Your task to perform on an android device: turn off notifications settings in the gmail app Image 0: 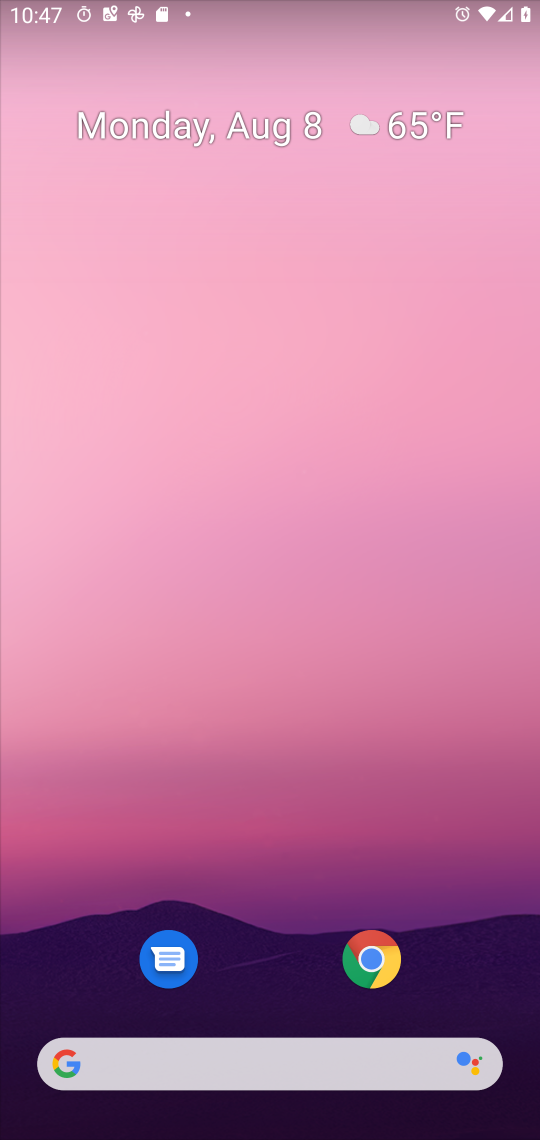
Step 0: drag from (456, 926) to (235, 119)
Your task to perform on an android device: turn off notifications settings in the gmail app Image 1: 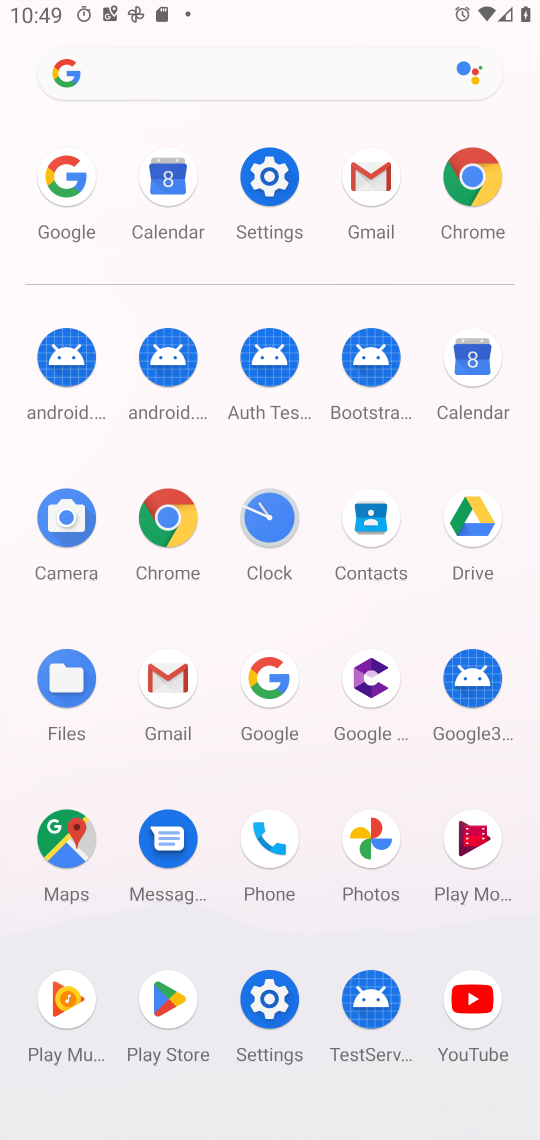
Step 1: click (162, 716)
Your task to perform on an android device: turn off notifications settings in the gmail app Image 2: 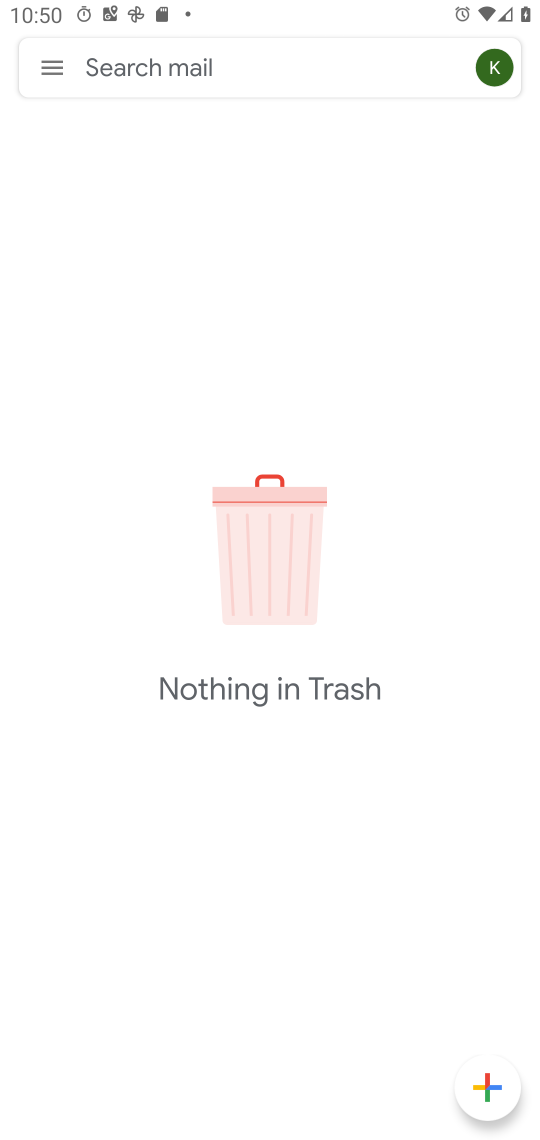
Step 2: click (77, 55)
Your task to perform on an android device: turn off notifications settings in the gmail app Image 3: 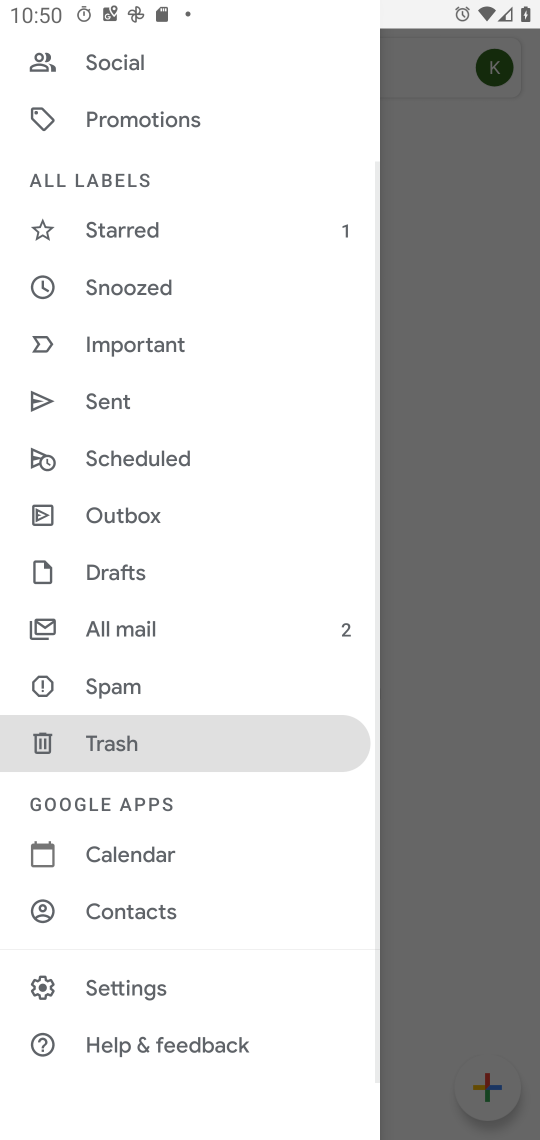
Step 3: click (123, 992)
Your task to perform on an android device: turn off notifications settings in the gmail app Image 4: 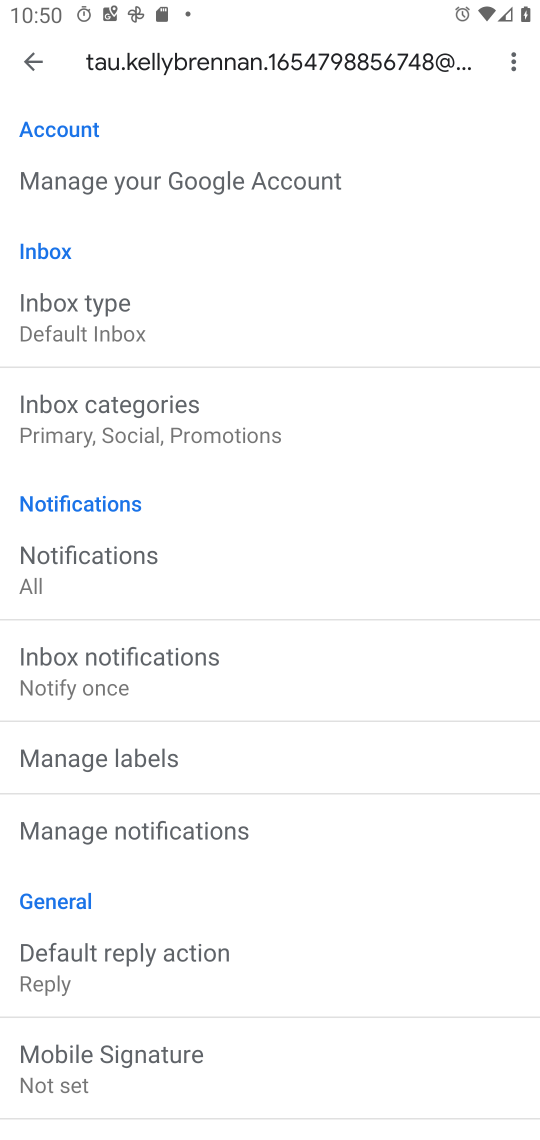
Step 4: click (102, 584)
Your task to perform on an android device: turn off notifications settings in the gmail app Image 5: 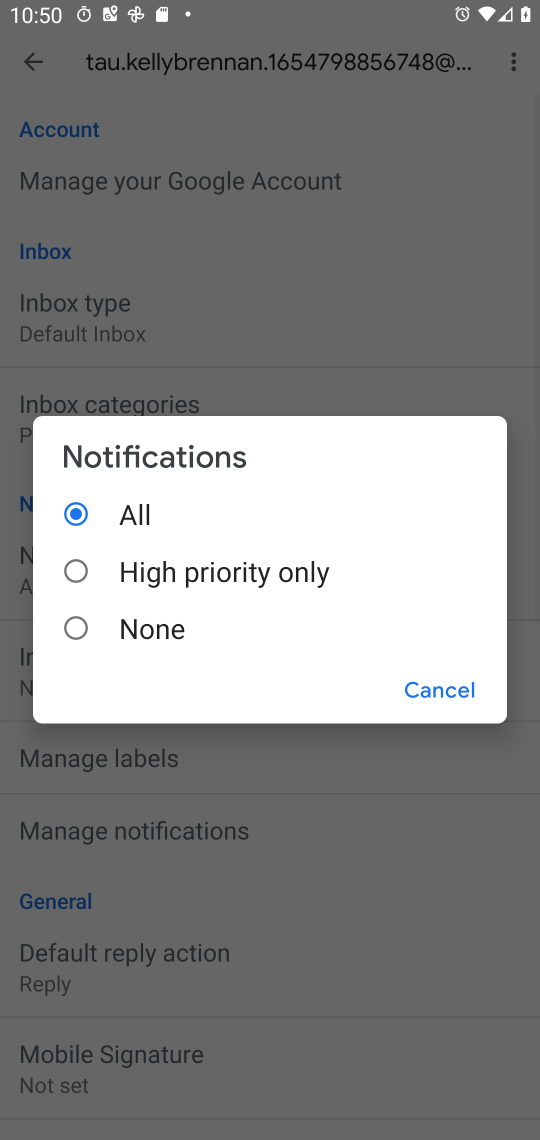
Step 5: click (119, 642)
Your task to perform on an android device: turn off notifications settings in the gmail app Image 6: 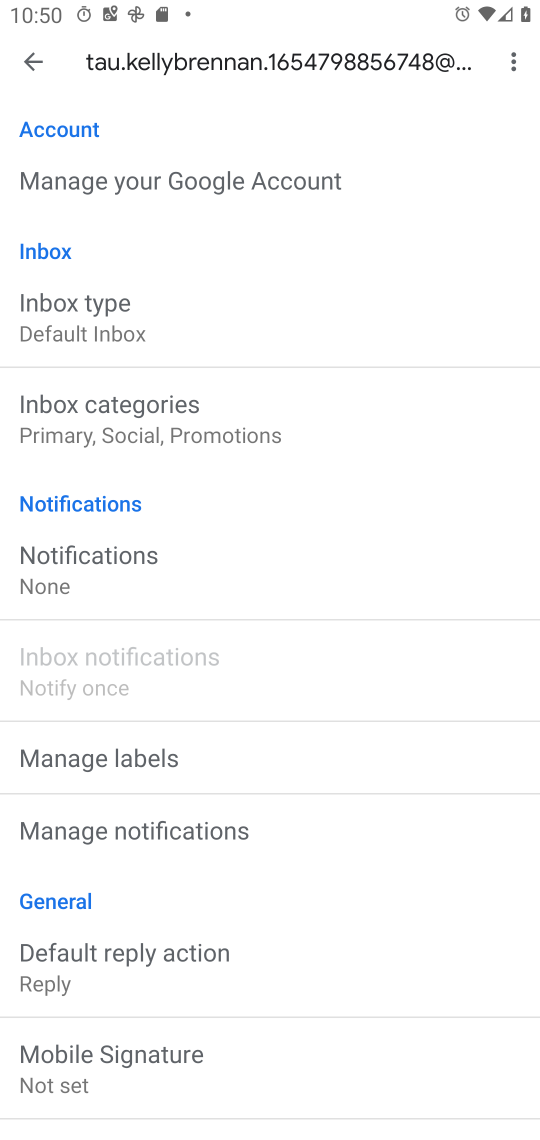
Step 6: task complete